Your task to perform on an android device: Open settings Image 0: 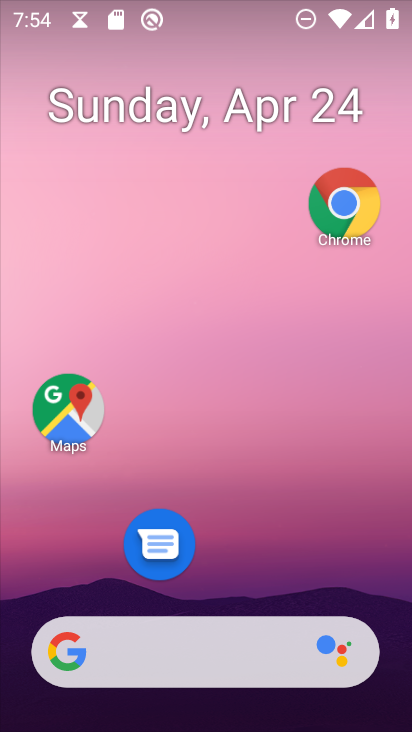
Step 0: click (305, 150)
Your task to perform on an android device: Open settings Image 1: 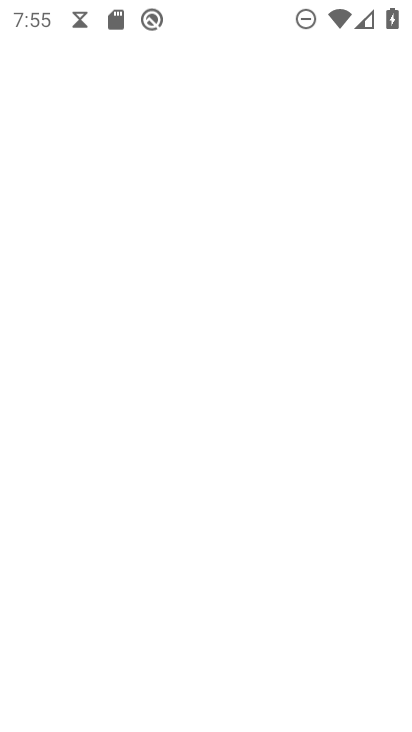
Step 1: press home button
Your task to perform on an android device: Open settings Image 2: 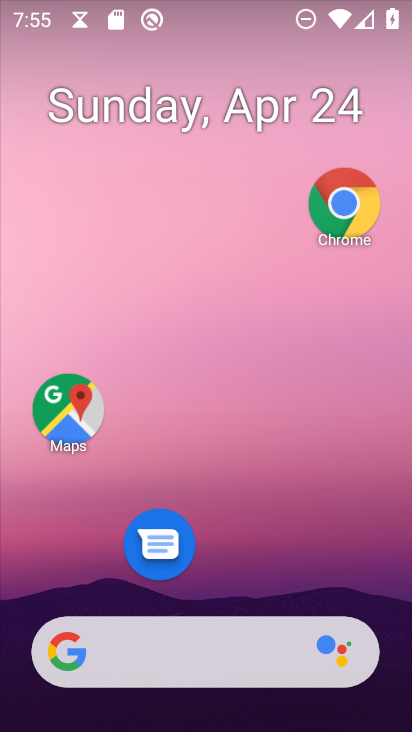
Step 2: drag from (205, 606) to (335, 153)
Your task to perform on an android device: Open settings Image 3: 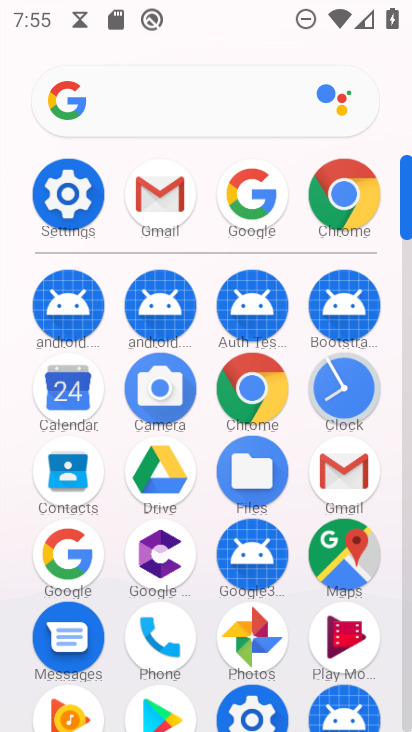
Step 3: click (68, 197)
Your task to perform on an android device: Open settings Image 4: 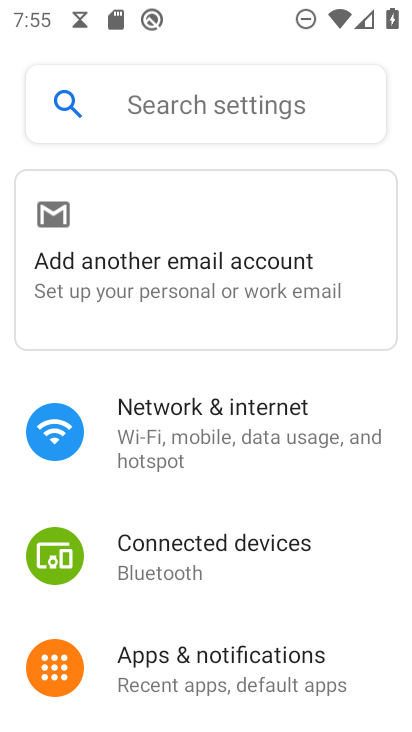
Step 4: click (70, 200)
Your task to perform on an android device: Open settings Image 5: 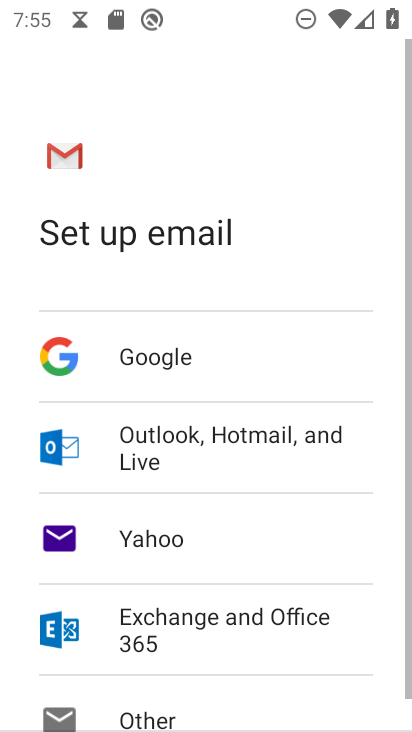
Step 5: press home button
Your task to perform on an android device: Open settings Image 6: 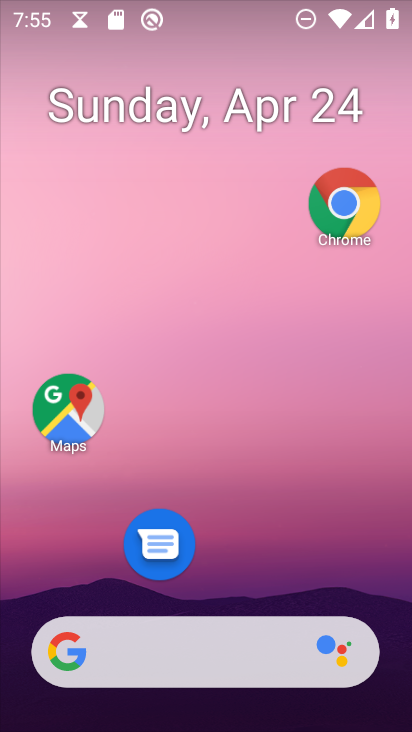
Step 6: drag from (181, 647) to (337, 135)
Your task to perform on an android device: Open settings Image 7: 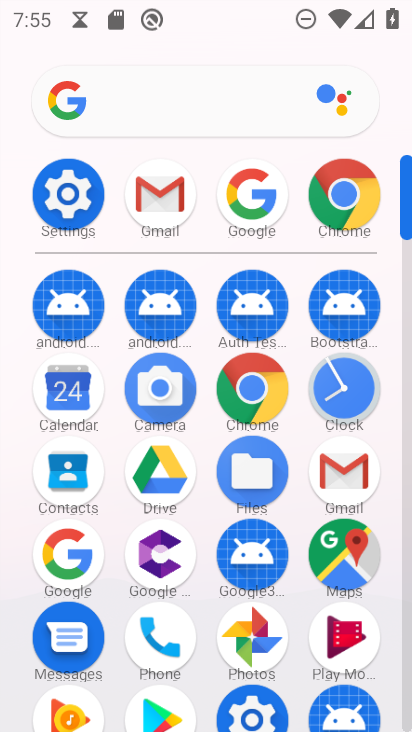
Step 7: click (68, 203)
Your task to perform on an android device: Open settings Image 8: 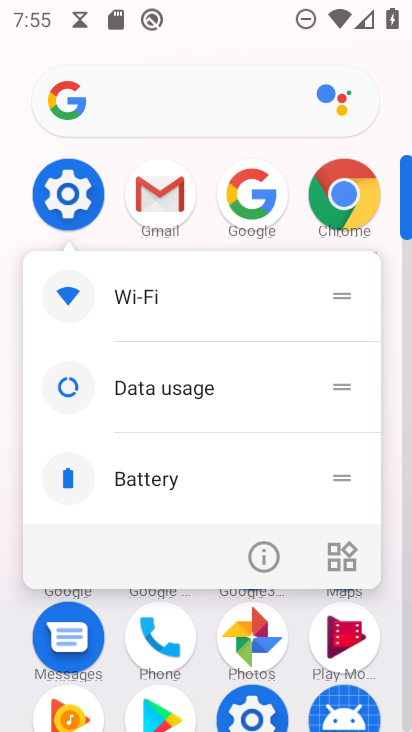
Step 8: click (69, 197)
Your task to perform on an android device: Open settings Image 9: 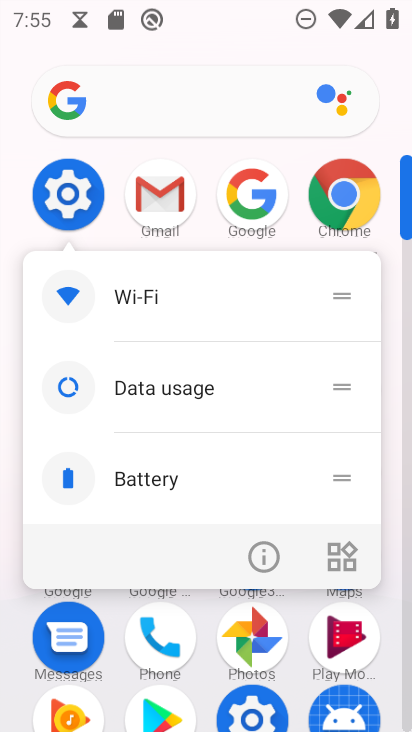
Step 9: click (65, 198)
Your task to perform on an android device: Open settings Image 10: 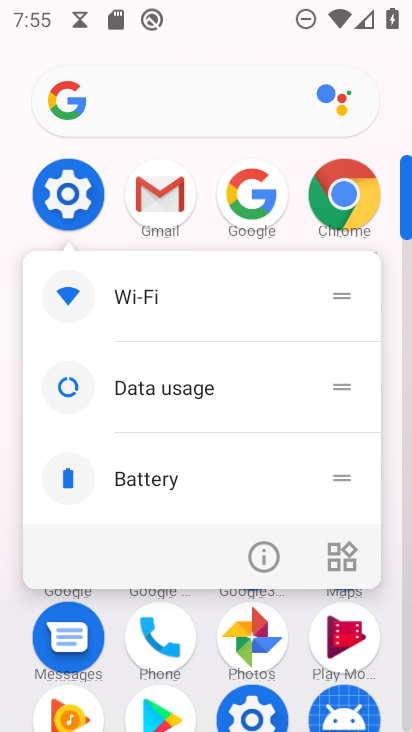
Step 10: click (61, 205)
Your task to perform on an android device: Open settings Image 11: 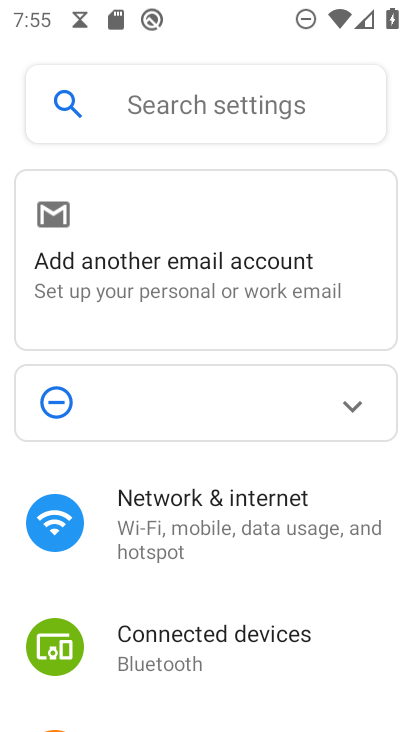
Step 11: task complete